Your task to perform on an android device: Go to CNN.com Image 0: 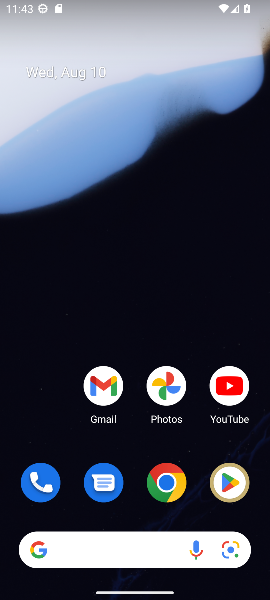
Step 0: drag from (174, 337) to (119, 113)
Your task to perform on an android device: Go to CNN.com Image 1: 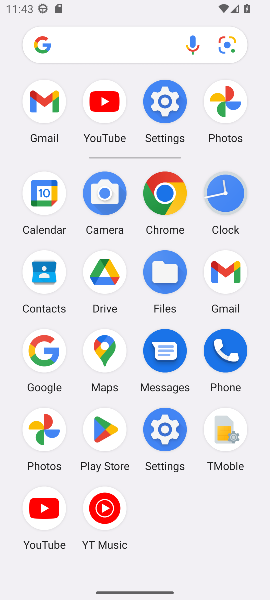
Step 1: click (112, 57)
Your task to perform on an android device: Go to CNN.com Image 2: 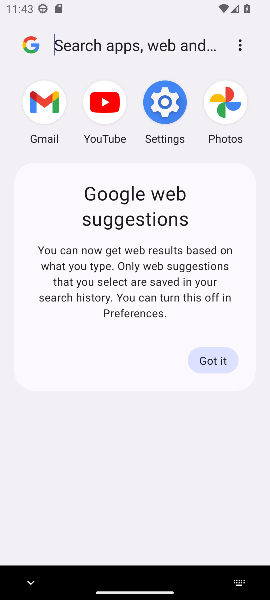
Step 2: type "CNN.com"
Your task to perform on an android device: Go to CNN.com Image 3: 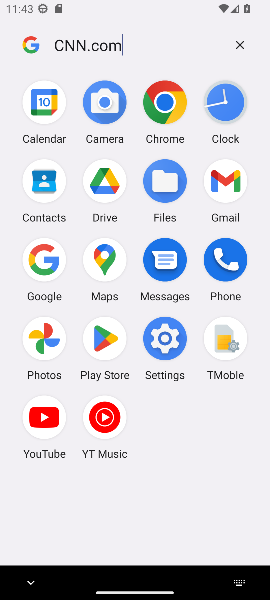
Step 3: type ""
Your task to perform on an android device: Go to CNN.com Image 4: 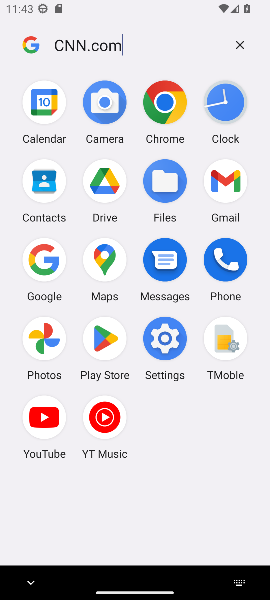
Step 4: press enter
Your task to perform on an android device: Go to CNN.com Image 5: 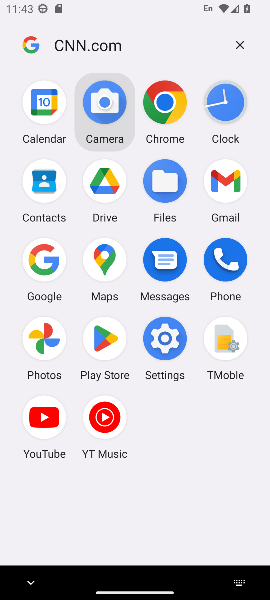
Step 5: press enter
Your task to perform on an android device: Go to CNN.com Image 6: 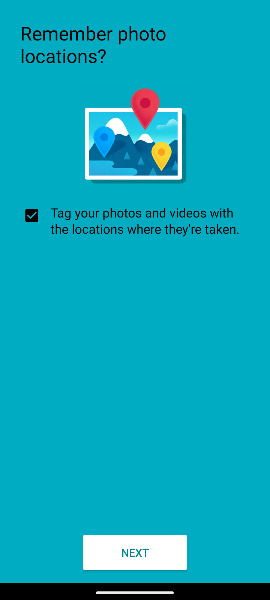
Step 6: click (168, 542)
Your task to perform on an android device: Go to CNN.com Image 7: 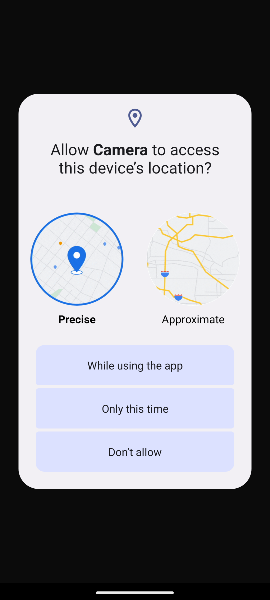
Step 7: click (133, 447)
Your task to perform on an android device: Go to CNN.com Image 8: 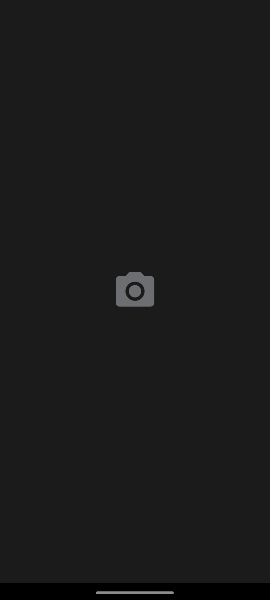
Step 8: press home button
Your task to perform on an android device: Go to CNN.com Image 9: 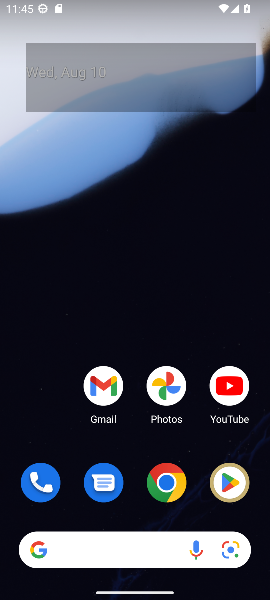
Step 9: click (147, 558)
Your task to perform on an android device: Go to CNN.com Image 10: 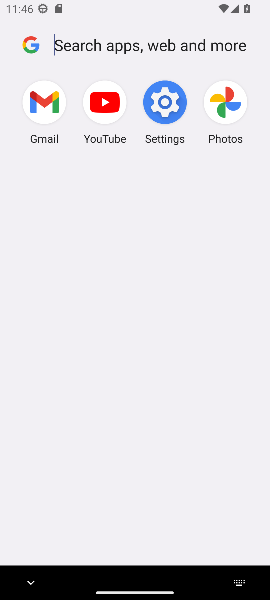
Step 10: type "CNN.com"
Your task to perform on an android device: Go to CNN.com Image 11: 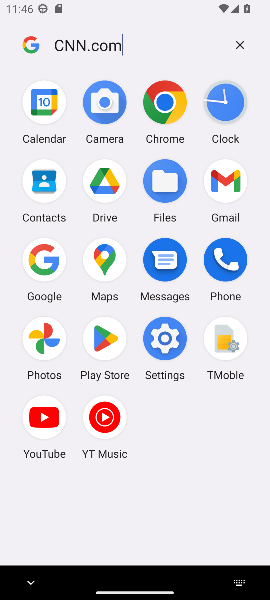
Step 11: type ""
Your task to perform on an android device: Go to CNN.com Image 12: 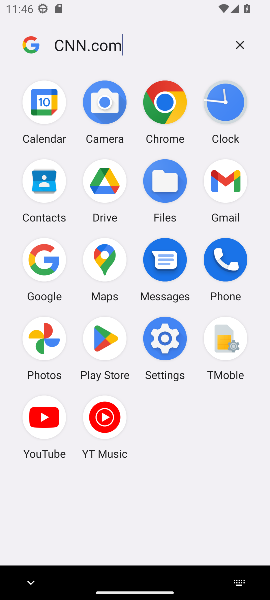
Step 12: press enter
Your task to perform on an android device: Go to CNN.com Image 13: 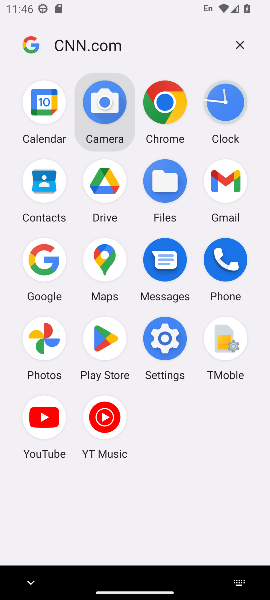
Step 13: click (142, 44)
Your task to perform on an android device: Go to CNN.com Image 14: 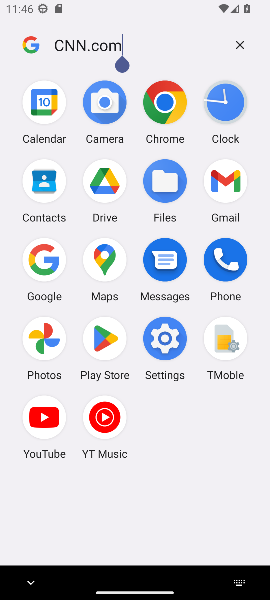
Step 14: press enter
Your task to perform on an android device: Go to CNN.com Image 15: 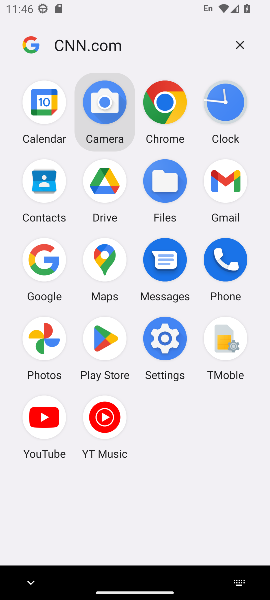
Step 15: press enter
Your task to perform on an android device: Go to CNN.com Image 16: 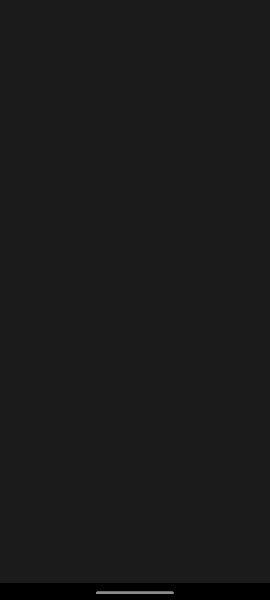
Step 16: press home button
Your task to perform on an android device: Go to CNN.com Image 17: 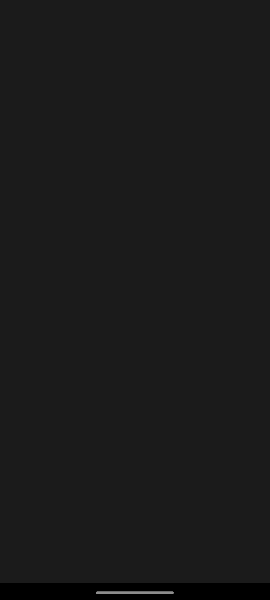
Step 17: press home button
Your task to perform on an android device: Go to CNN.com Image 18: 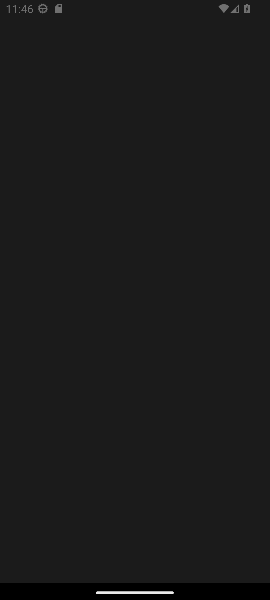
Step 18: press home button
Your task to perform on an android device: Go to CNN.com Image 19: 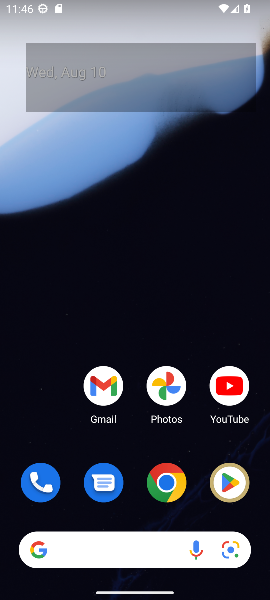
Step 19: press home button
Your task to perform on an android device: Go to CNN.com Image 20: 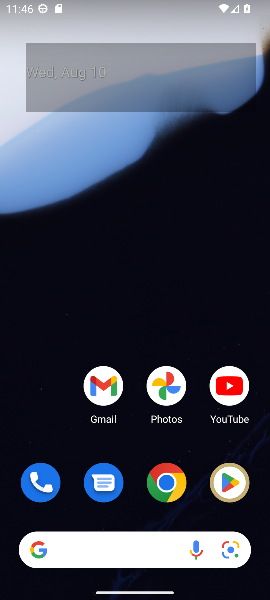
Step 20: click (169, 481)
Your task to perform on an android device: Go to CNN.com Image 21: 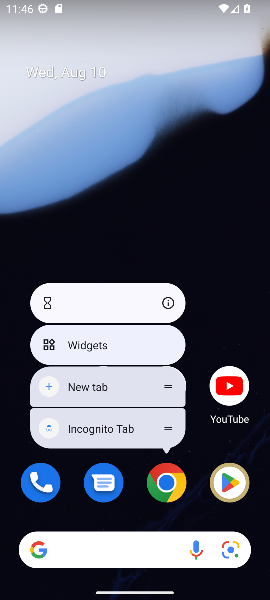
Step 21: click (73, 392)
Your task to perform on an android device: Go to CNN.com Image 22: 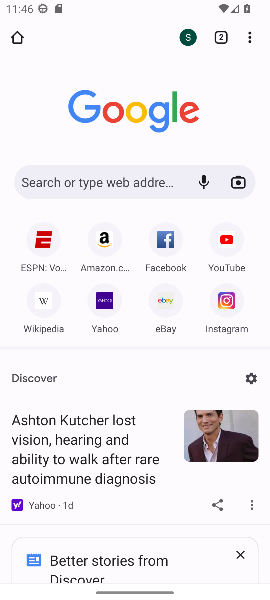
Step 22: click (90, 189)
Your task to perform on an android device: Go to CNN.com Image 23: 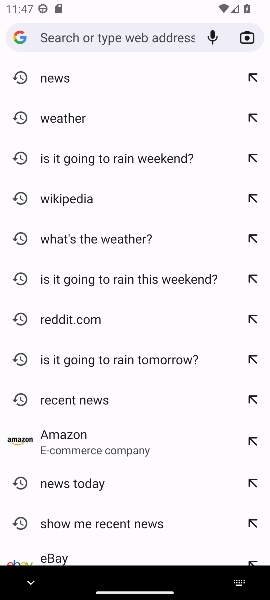
Step 23: type "CNN.com"
Your task to perform on an android device: Go to CNN.com Image 24: 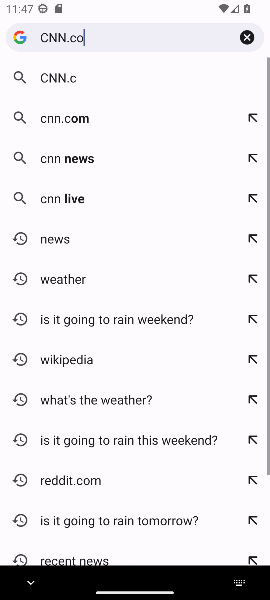
Step 24: type ""
Your task to perform on an android device: Go to CNN.com Image 25: 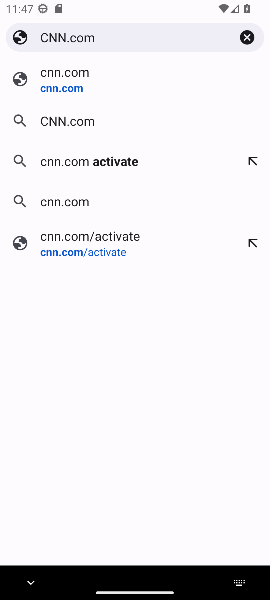
Step 25: press enter
Your task to perform on an android device: Go to CNN.com Image 26: 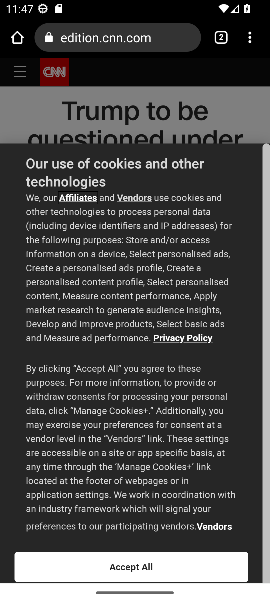
Step 26: task complete